Your task to perform on an android device: refresh tabs in the chrome app Image 0: 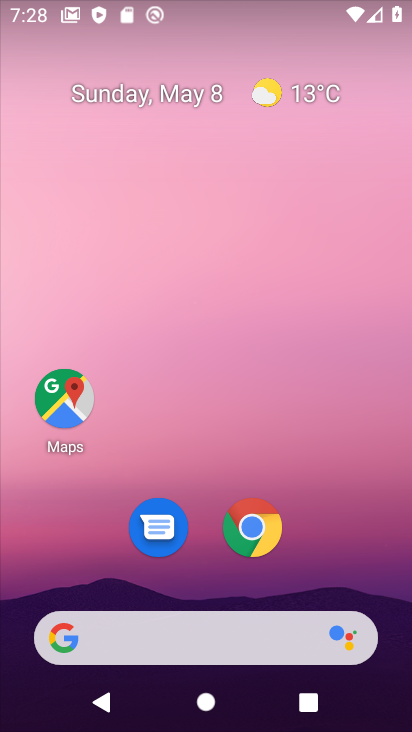
Step 0: click (259, 510)
Your task to perform on an android device: refresh tabs in the chrome app Image 1: 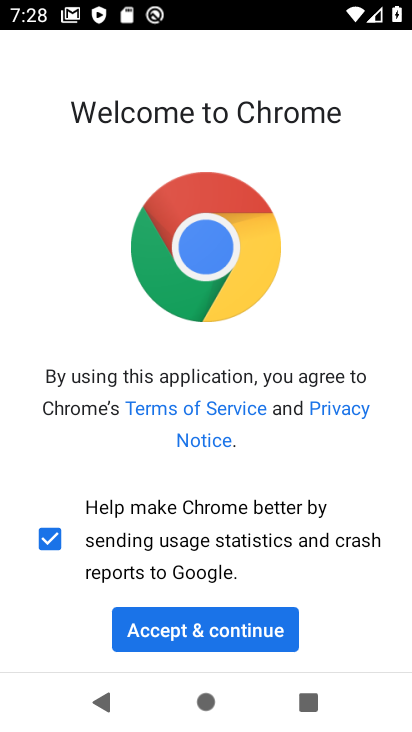
Step 1: click (204, 625)
Your task to perform on an android device: refresh tabs in the chrome app Image 2: 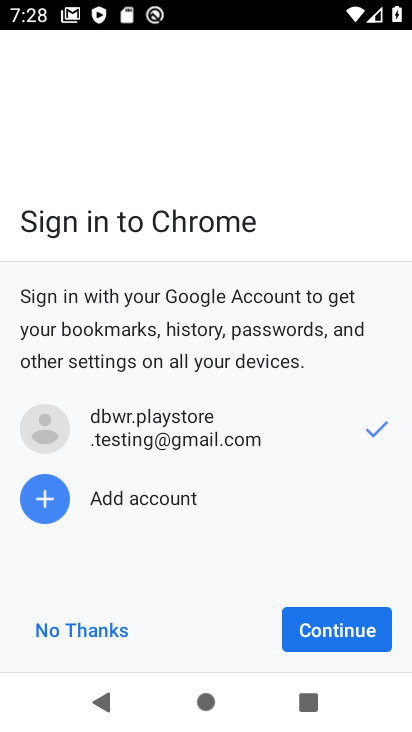
Step 2: click (336, 628)
Your task to perform on an android device: refresh tabs in the chrome app Image 3: 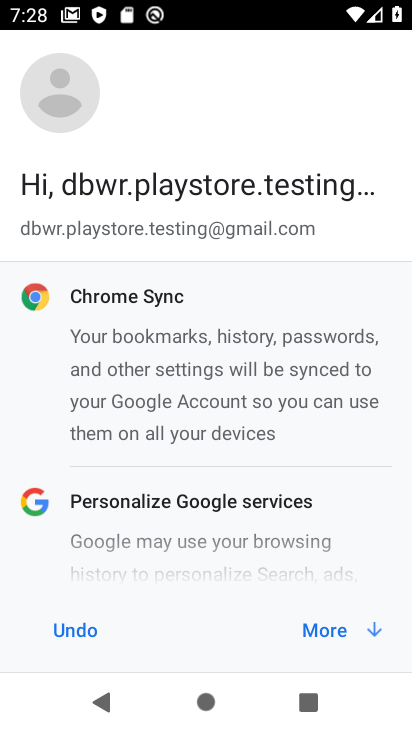
Step 3: click (335, 628)
Your task to perform on an android device: refresh tabs in the chrome app Image 4: 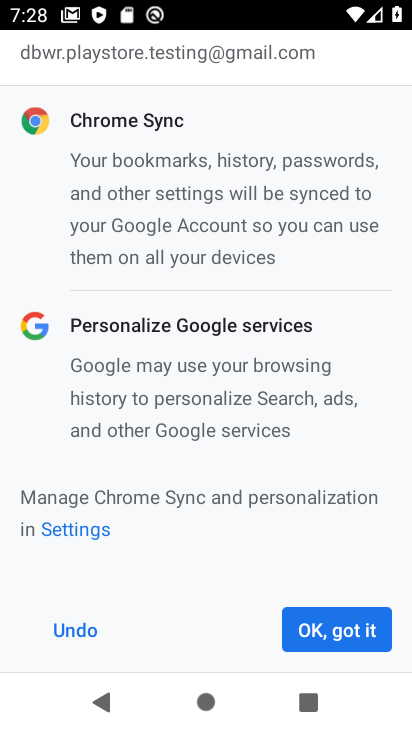
Step 4: click (356, 623)
Your task to perform on an android device: refresh tabs in the chrome app Image 5: 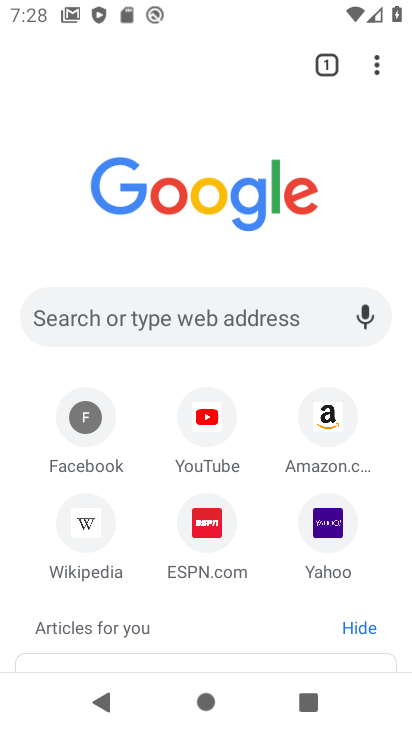
Step 5: click (384, 70)
Your task to perform on an android device: refresh tabs in the chrome app Image 6: 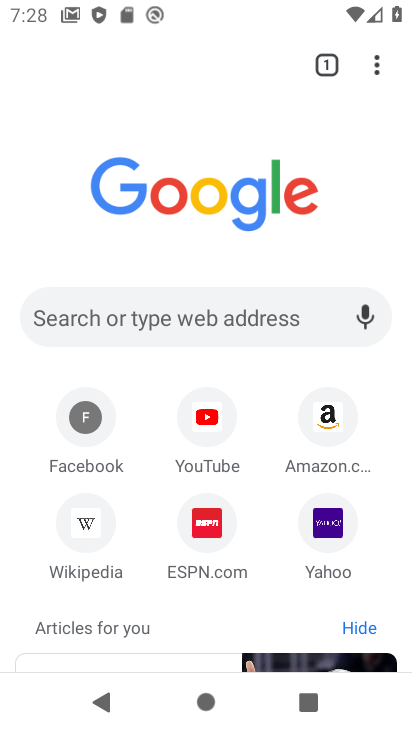
Step 6: click (372, 75)
Your task to perform on an android device: refresh tabs in the chrome app Image 7: 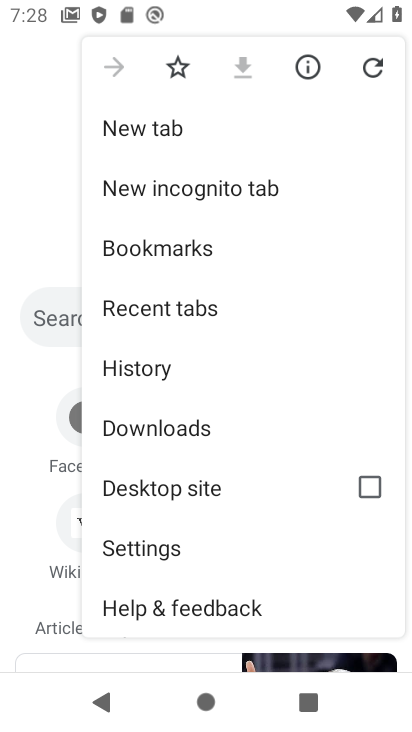
Step 7: click (373, 64)
Your task to perform on an android device: refresh tabs in the chrome app Image 8: 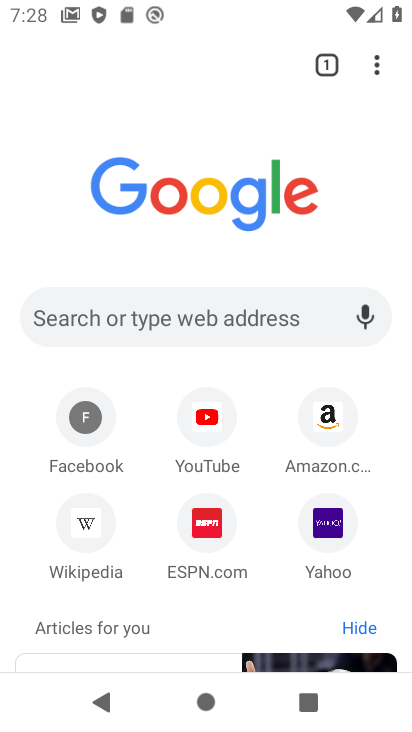
Step 8: task complete